Your task to perform on an android device: Go to Amazon Image 0: 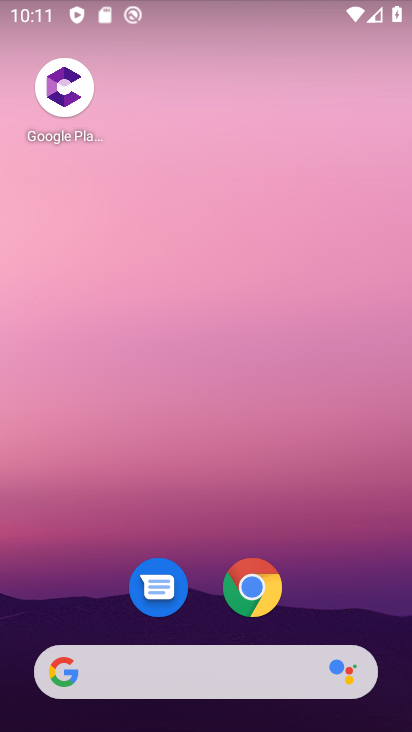
Step 0: drag from (360, 600) to (273, 129)
Your task to perform on an android device: Go to Amazon Image 1: 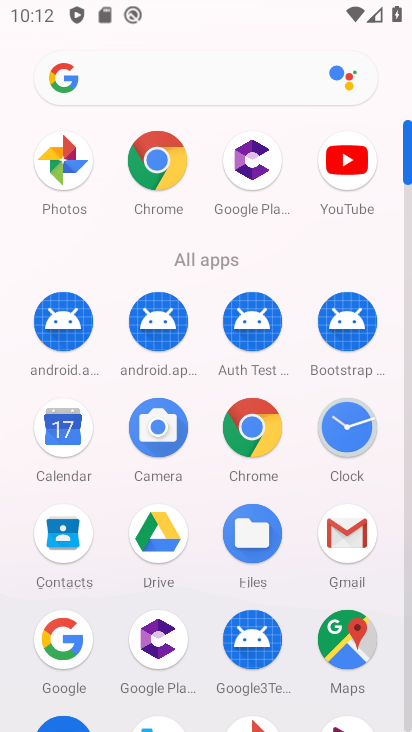
Step 1: drag from (203, 611) to (187, 328)
Your task to perform on an android device: Go to Amazon Image 2: 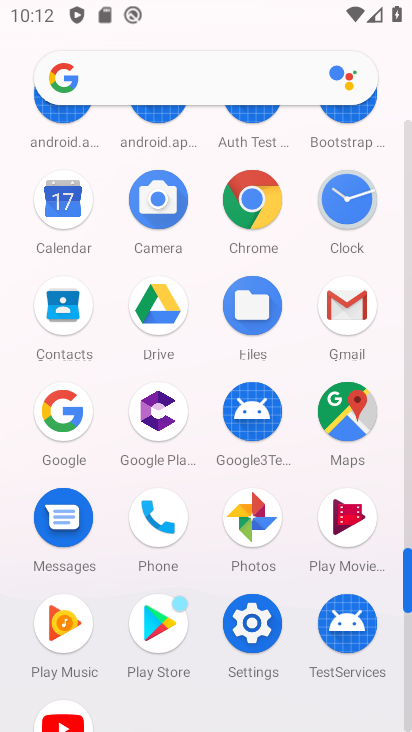
Step 2: click (243, 214)
Your task to perform on an android device: Go to Amazon Image 3: 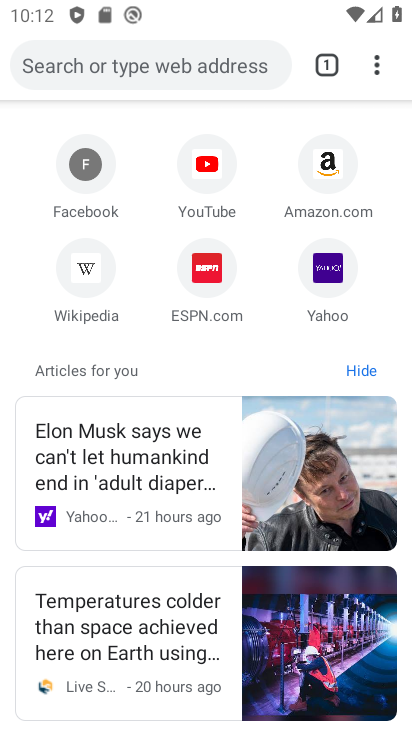
Step 3: click (342, 182)
Your task to perform on an android device: Go to Amazon Image 4: 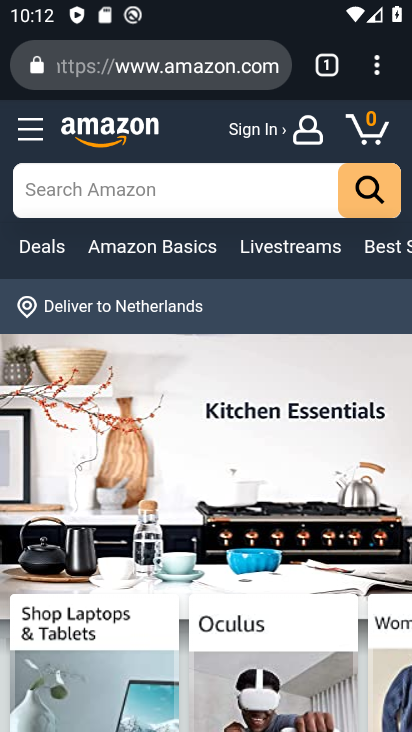
Step 4: task complete